Your task to perform on an android device: Open accessibility settings Image 0: 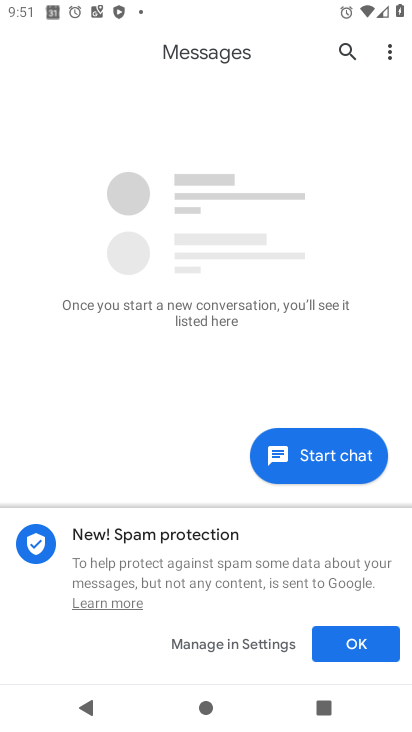
Step 0: press home button
Your task to perform on an android device: Open accessibility settings Image 1: 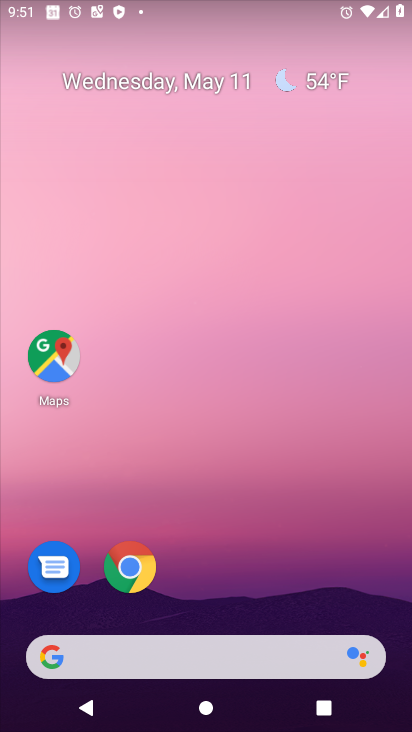
Step 1: drag from (194, 583) to (233, 37)
Your task to perform on an android device: Open accessibility settings Image 2: 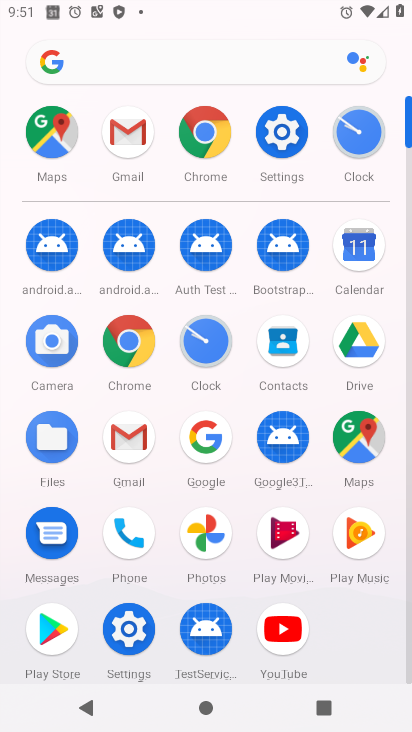
Step 2: click (303, 143)
Your task to perform on an android device: Open accessibility settings Image 3: 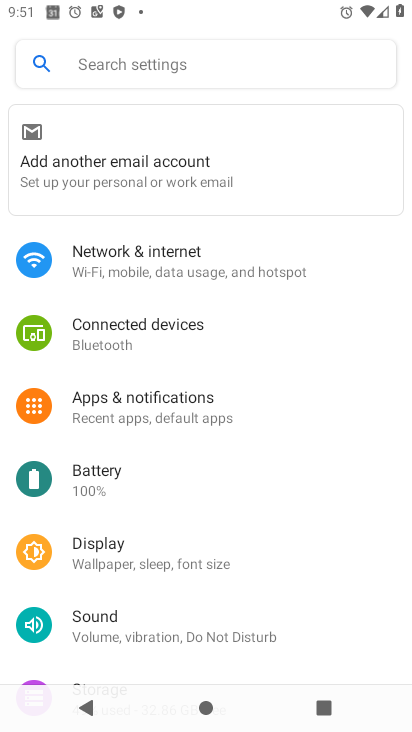
Step 3: drag from (167, 567) to (210, 280)
Your task to perform on an android device: Open accessibility settings Image 4: 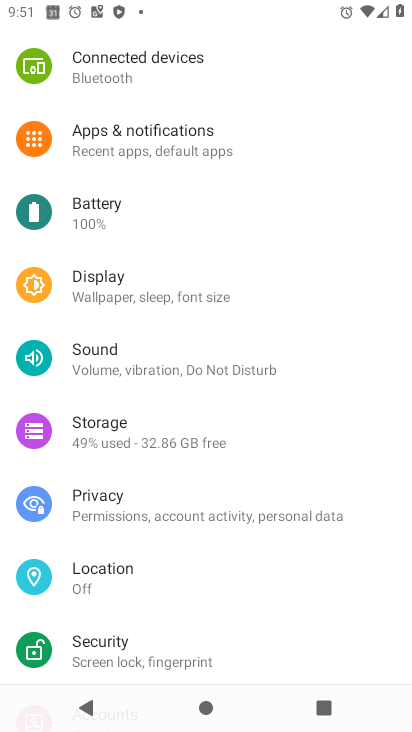
Step 4: drag from (133, 534) to (236, 156)
Your task to perform on an android device: Open accessibility settings Image 5: 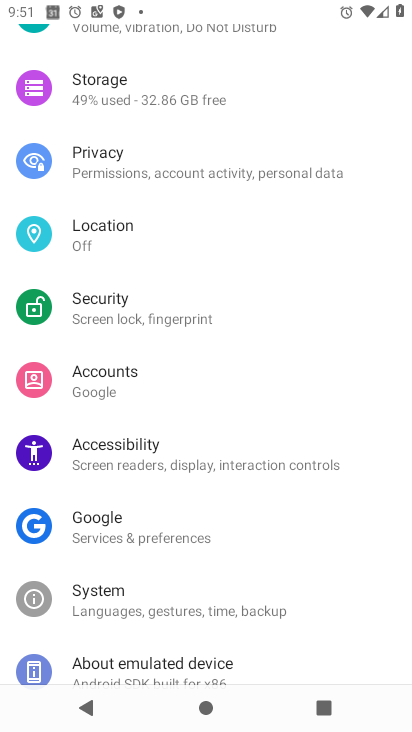
Step 5: click (109, 443)
Your task to perform on an android device: Open accessibility settings Image 6: 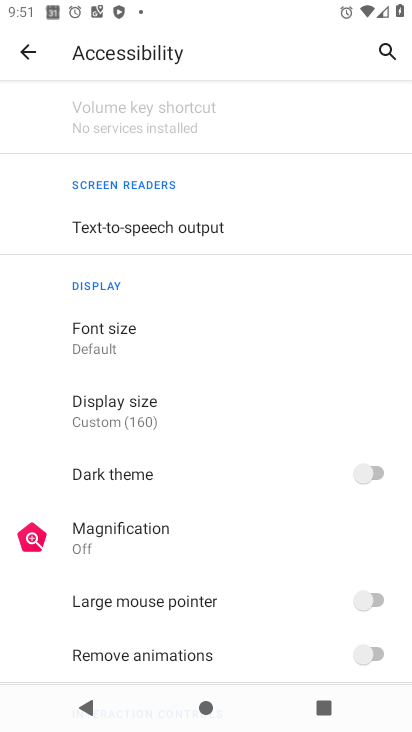
Step 6: task complete